Your task to perform on an android device: turn pop-ups on in chrome Image 0: 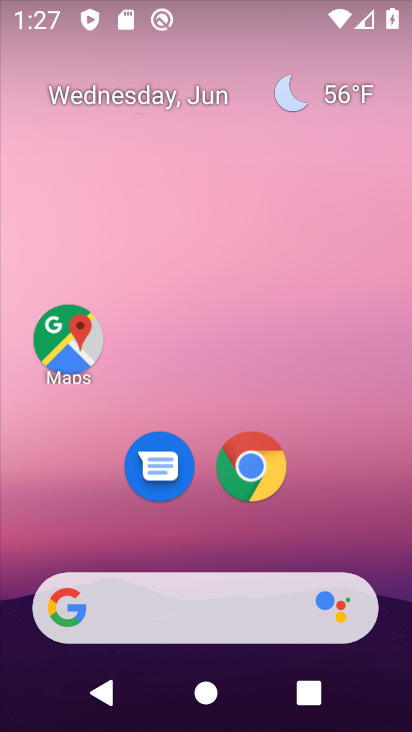
Step 0: click (252, 473)
Your task to perform on an android device: turn pop-ups on in chrome Image 1: 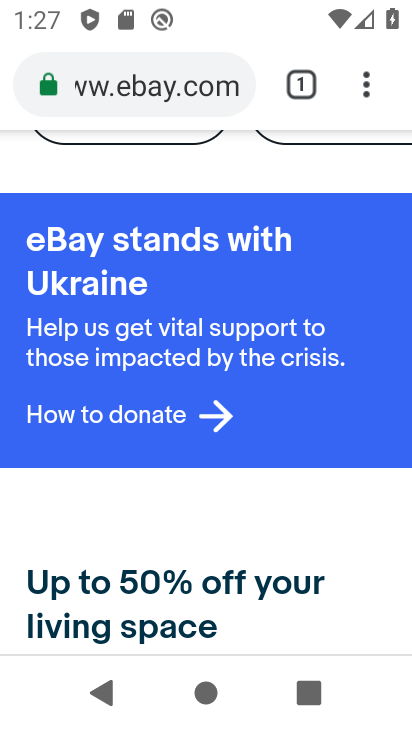
Step 1: drag from (356, 85) to (231, 519)
Your task to perform on an android device: turn pop-ups on in chrome Image 2: 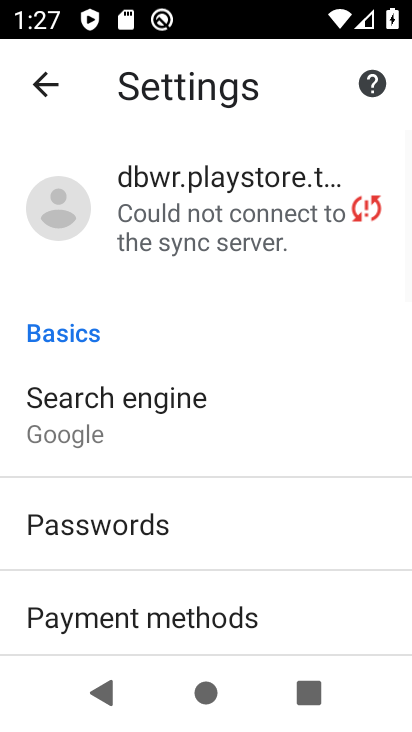
Step 2: drag from (261, 585) to (364, 180)
Your task to perform on an android device: turn pop-ups on in chrome Image 3: 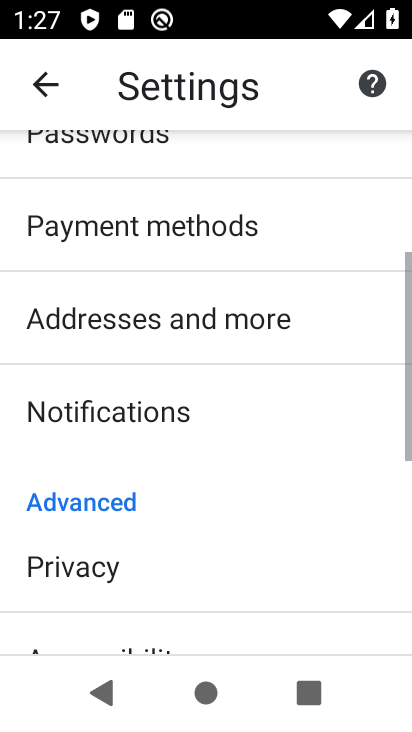
Step 3: drag from (228, 501) to (322, 172)
Your task to perform on an android device: turn pop-ups on in chrome Image 4: 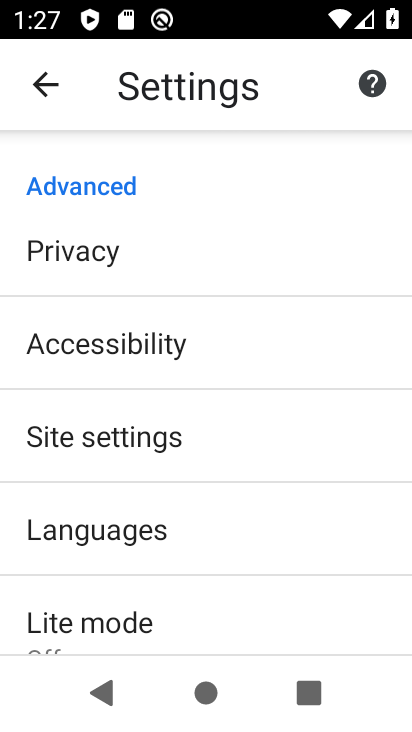
Step 4: drag from (155, 567) to (213, 384)
Your task to perform on an android device: turn pop-ups on in chrome Image 5: 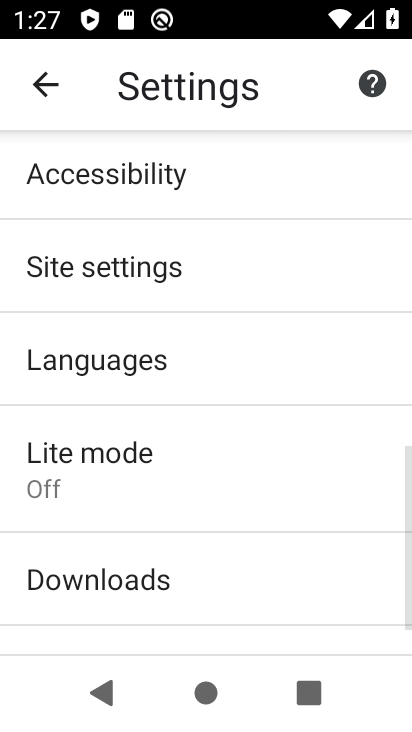
Step 5: click (198, 255)
Your task to perform on an android device: turn pop-ups on in chrome Image 6: 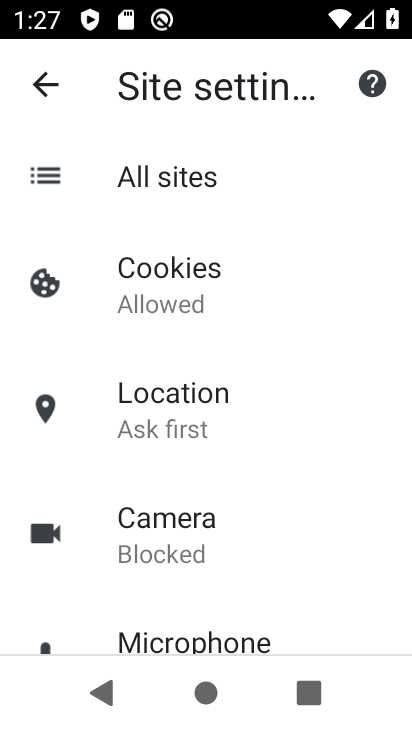
Step 6: drag from (171, 529) to (269, 182)
Your task to perform on an android device: turn pop-ups on in chrome Image 7: 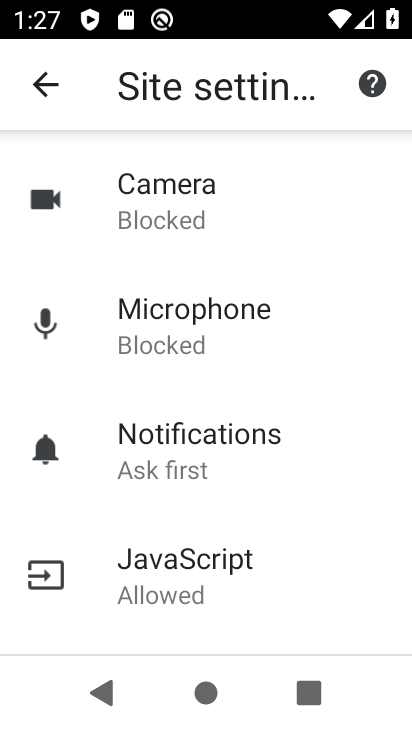
Step 7: drag from (181, 536) to (244, 304)
Your task to perform on an android device: turn pop-ups on in chrome Image 8: 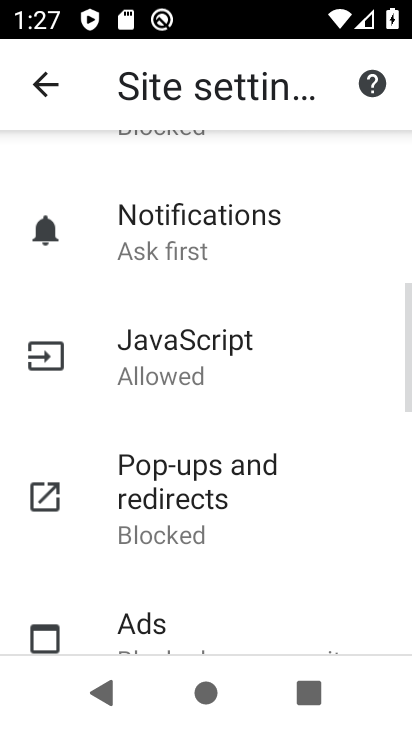
Step 8: click (235, 479)
Your task to perform on an android device: turn pop-ups on in chrome Image 9: 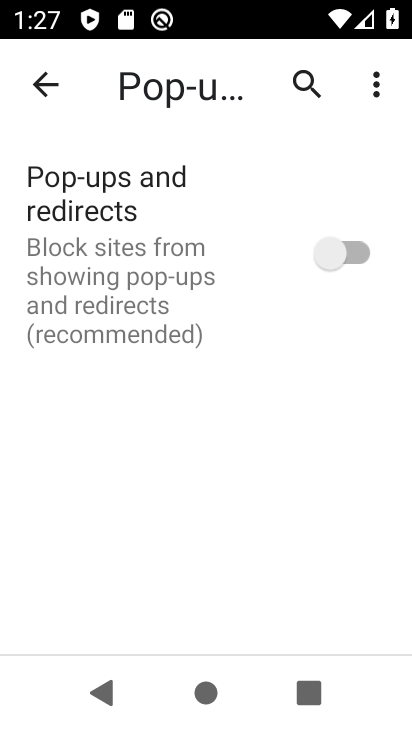
Step 9: click (376, 252)
Your task to perform on an android device: turn pop-ups on in chrome Image 10: 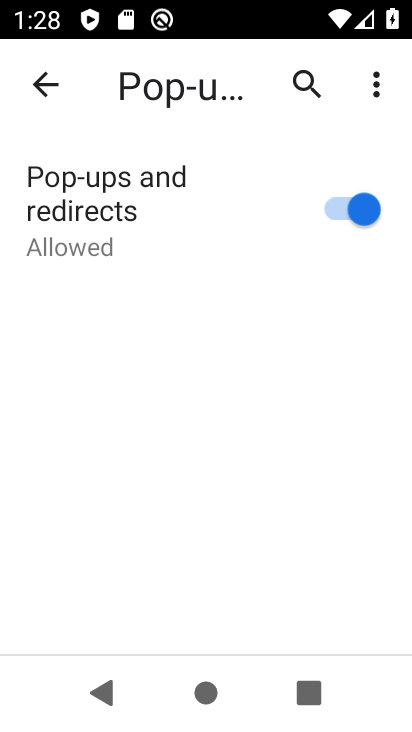
Step 10: task complete